Your task to perform on an android device: Open the Play Movies app and select the watchlist tab. Image 0: 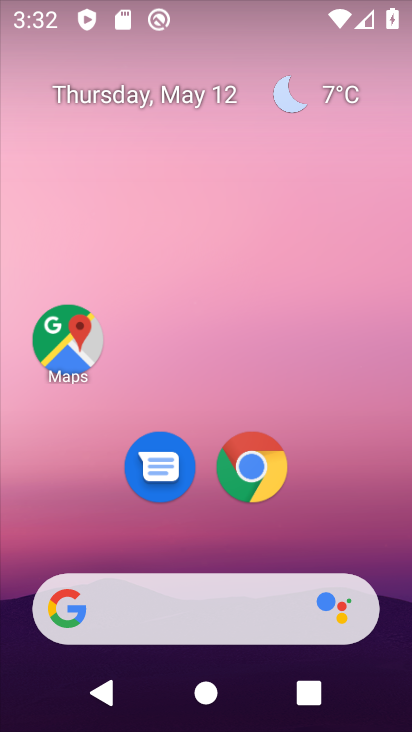
Step 0: drag from (118, 569) to (207, 157)
Your task to perform on an android device: Open the Play Movies app and select the watchlist tab. Image 1: 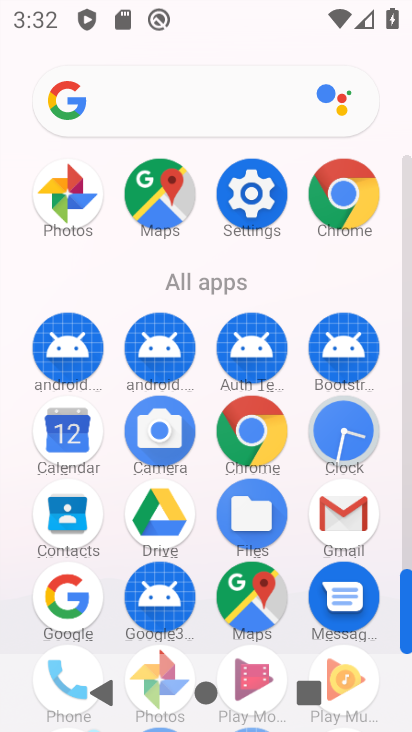
Step 1: drag from (178, 613) to (234, 341)
Your task to perform on an android device: Open the Play Movies app and select the watchlist tab. Image 2: 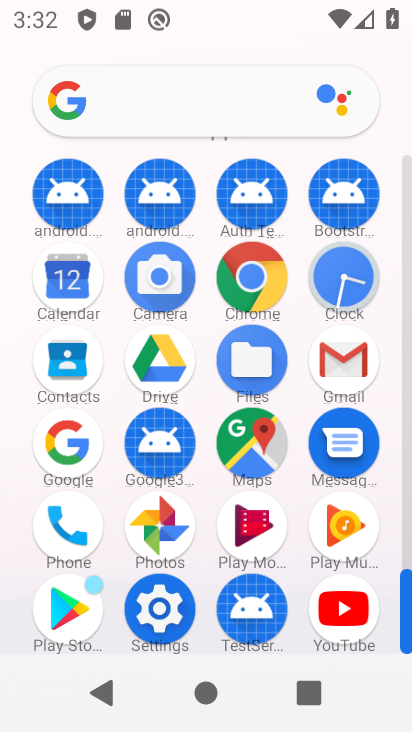
Step 2: click (260, 535)
Your task to perform on an android device: Open the Play Movies app and select the watchlist tab. Image 3: 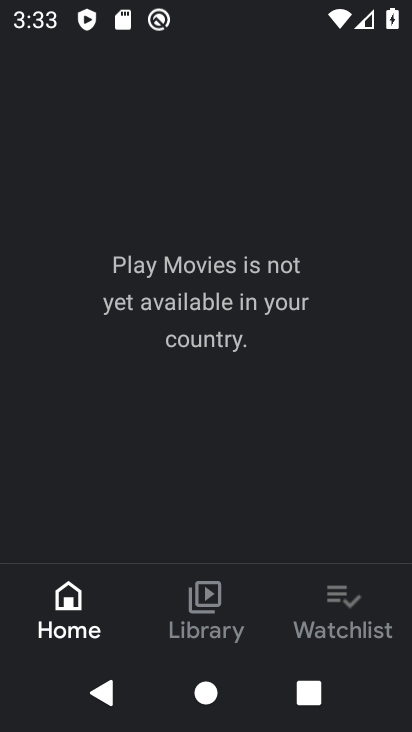
Step 3: click (359, 626)
Your task to perform on an android device: Open the Play Movies app and select the watchlist tab. Image 4: 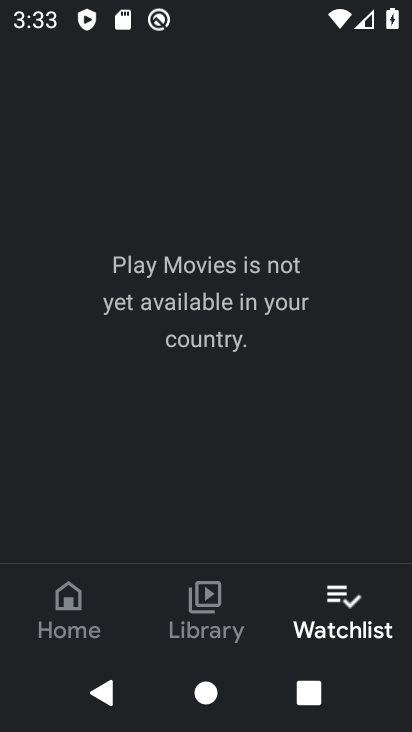
Step 4: task complete